Your task to perform on an android device: Open Google Maps Image 0: 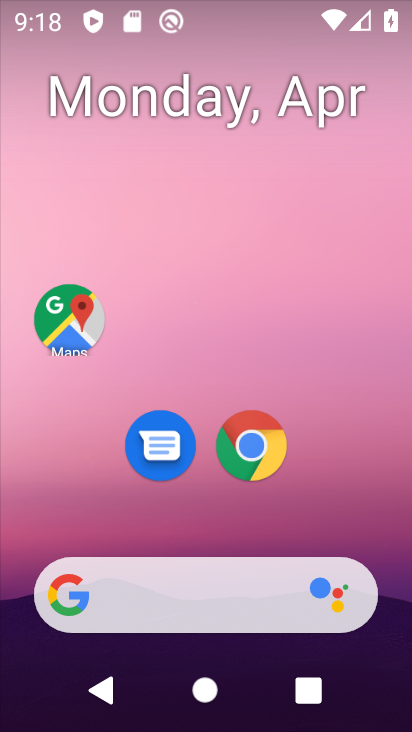
Step 0: click (64, 332)
Your task to perform on an android device: Open Google Maps Image 1: 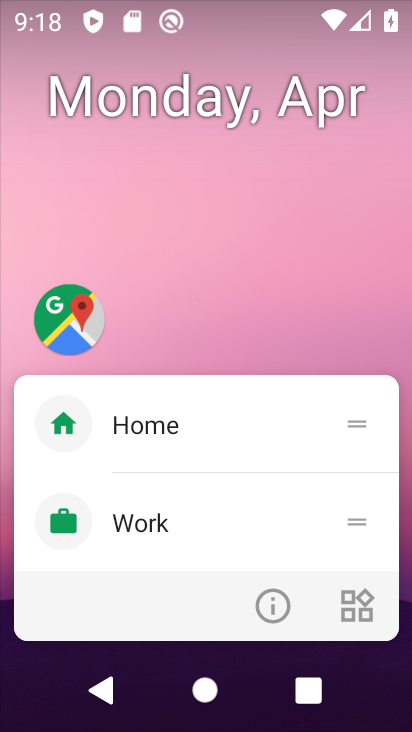
Step 1: click (64, 332)
Your task to perform on an android device: Open Google Maps Image 2: 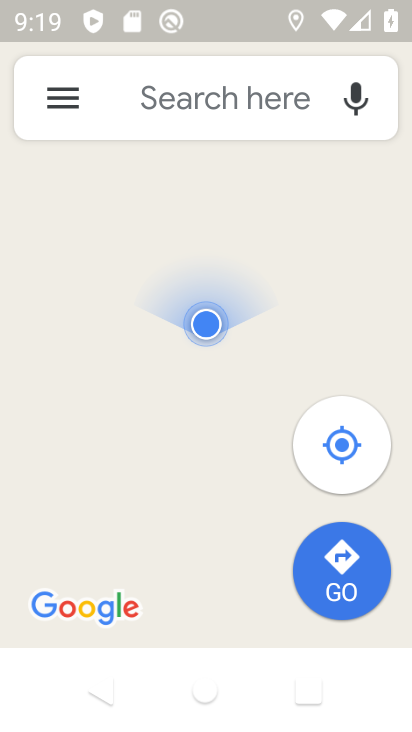
Step 2: task complete